Your task to perform on an android device: Open calendar and show me the first week of next month Image 0: 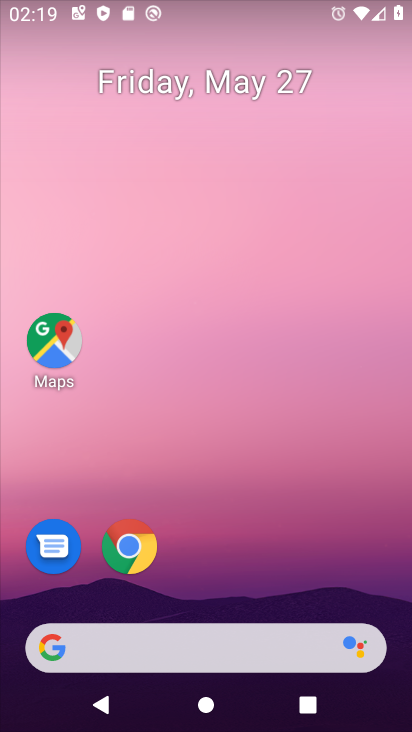
Step 0: drag from (284, 672) to (293, 164)
Your task to perform on an android device: Open calendar and show me the first week of next month Image 1: 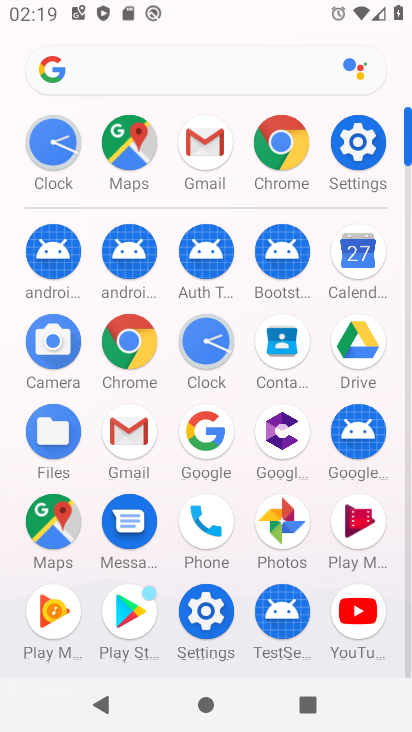
Step 1: click (370, 248)
Your task to perform on an android device: Open calendar and show me the first week of next month Image 2: 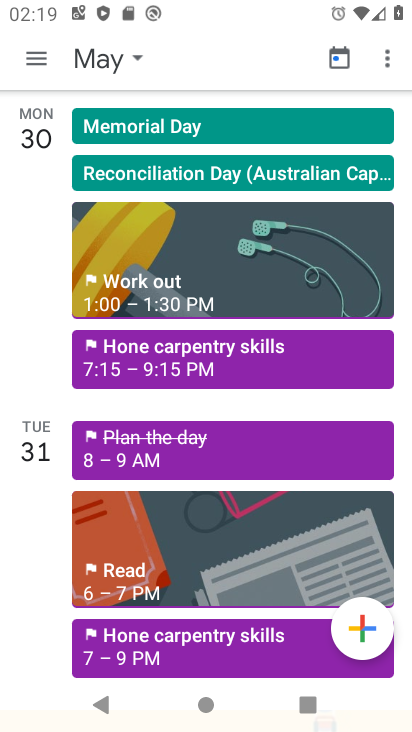
Step 2: click (41, 74)
Your task to perform on an android device: Open calendar and show me the first week of next month Image 3: 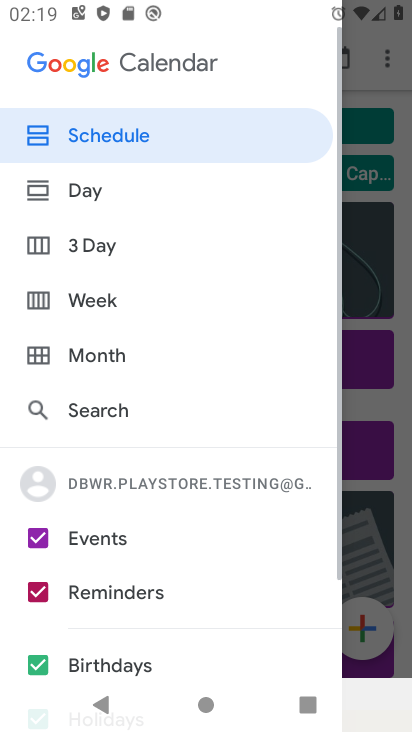
Step 3: click (130, 343)
Your task to perform on an android device: Open calendar and show me the first week of next month Image 4: 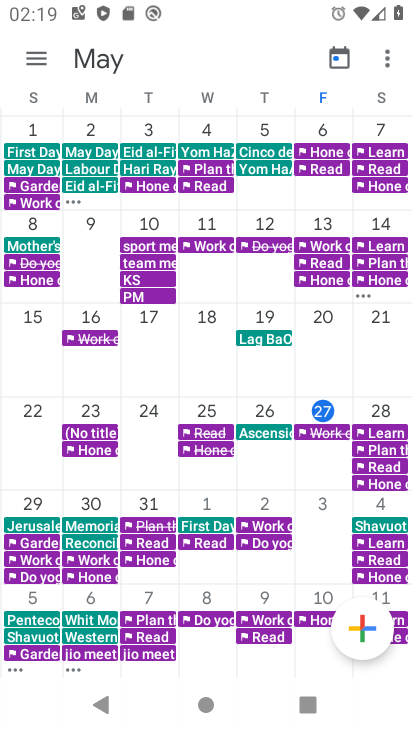
Step 4: drag from (346, 389) to (1, 472)
Your task to perform on an android device: Open calendar and show me the first week of next month Image 5: 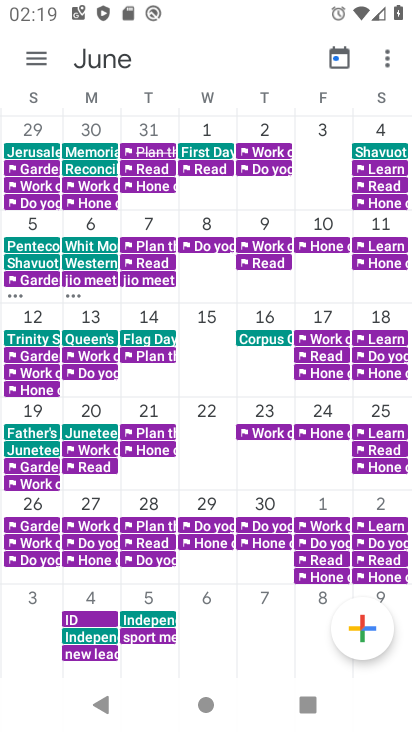
Step 5: click (211, 151)
Your task to perform on an android device: Open calendar and show me the first week of next month Image 6: 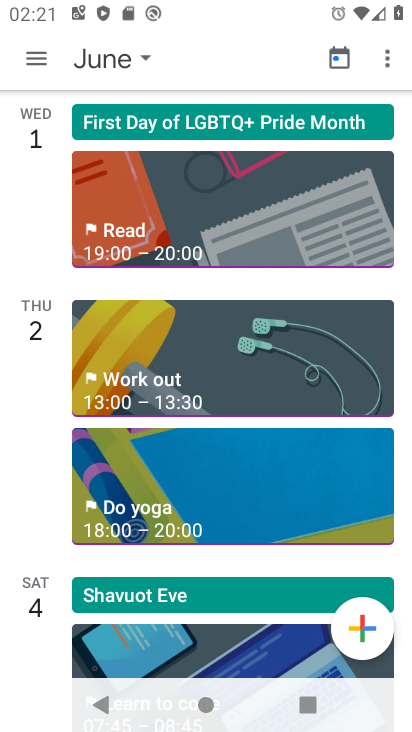
Step 6: task complete